Your task to perform on an android device: What's the weather going to be tomorrow? Image 0: 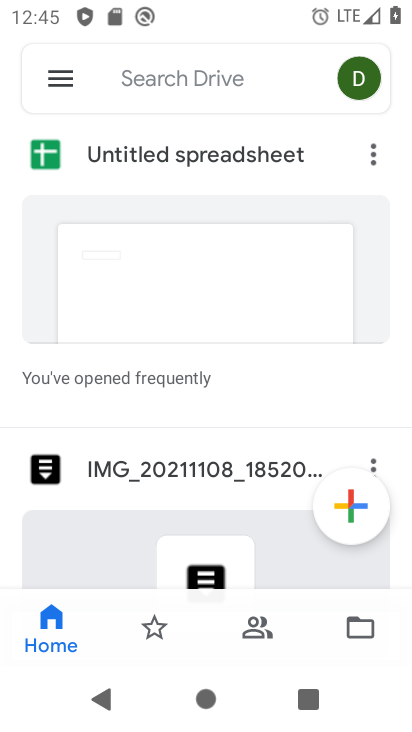
Step 0: press home button
Your task to perform on an android device: What's the weather going to be tomorrow? Image 1: 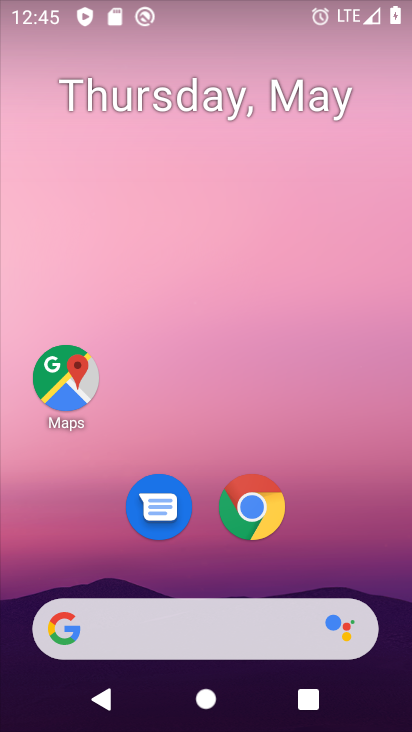
Step 1: drag from (212, 568) to (211, 185)
Your task to perform on an android device: What's the weather going to be tomorrow? Image 2: 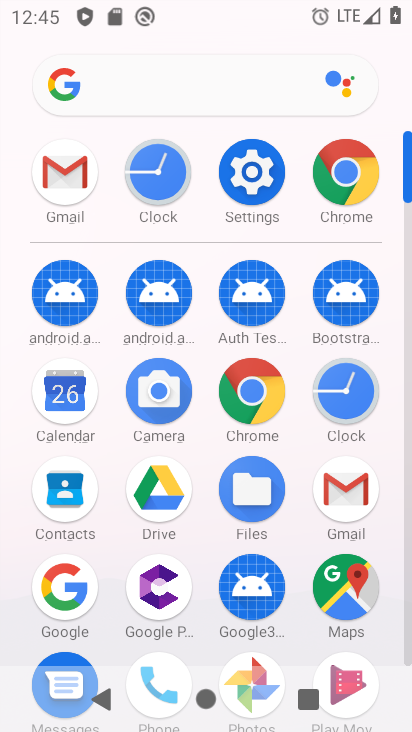
Step 2: click (69, 582)
Your task to perform on an android device: What's the weather going to be tomorrow? Image 3: 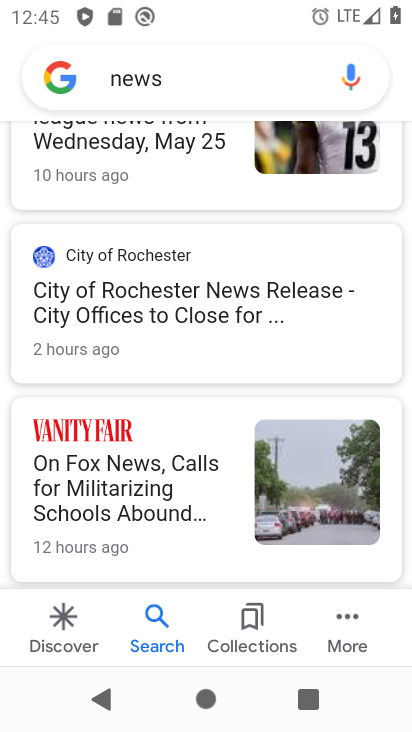
Step 3: click (230, 88)
Your task to perform on an android device: What's the weather going to be tomorrow? Image 4: 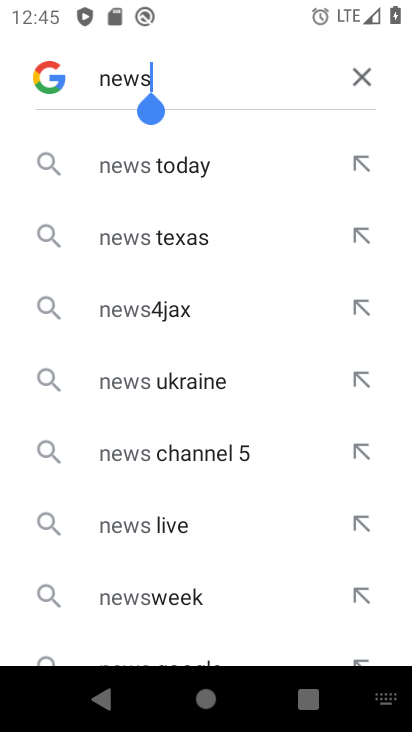
Step 4: click (355, 72)
Your task to perform on an android device: What's the weather going to be tomorrow? Image 5: 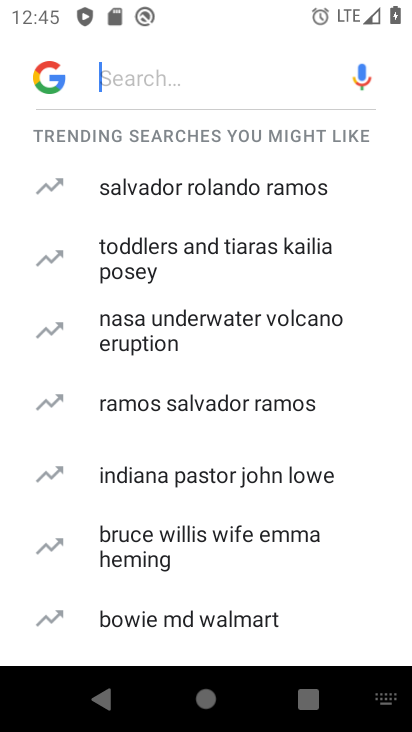
Step 5: click (215, 89)
Your task to perform on an android device: What's the weather going to be tomorrow? Image 6: 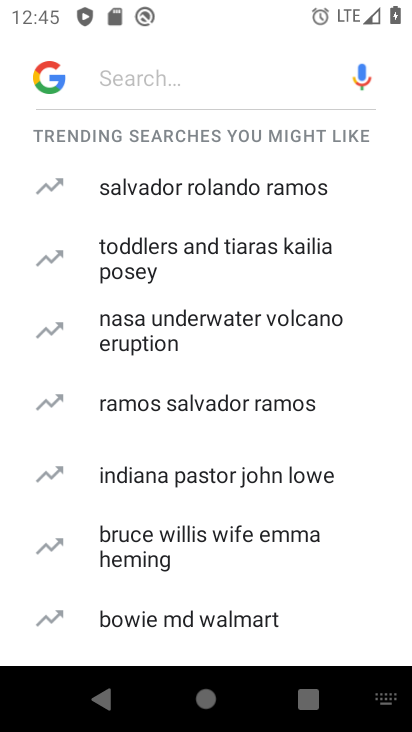
Step 6: type "weather"
Your task to perform on an android device: What's the weather going to be tomorrow? Image 7: 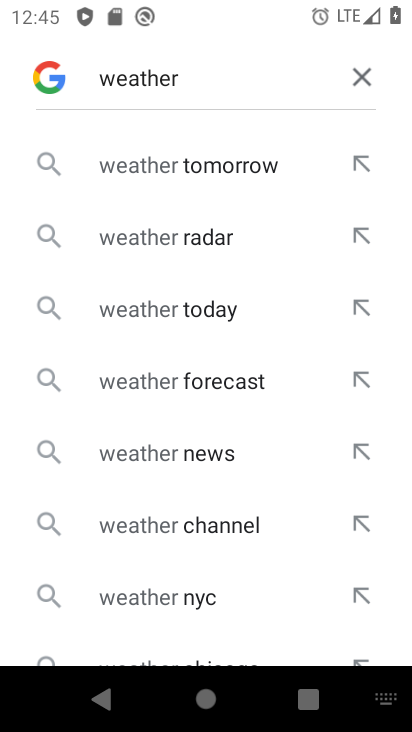
Step 7: click (245, 318)
Your task to perform on an android device: What's the weather going to be tomorrow? Image 8: 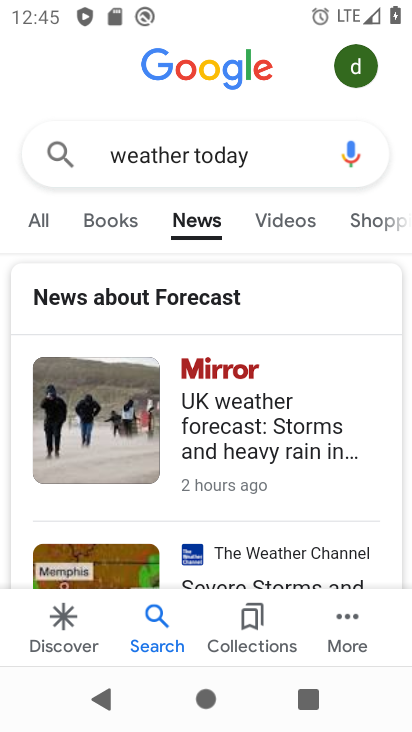
Step 8: click (38, 220)
Your task to perform on an android device: What's the weather going to be tomorrow? Image 9: 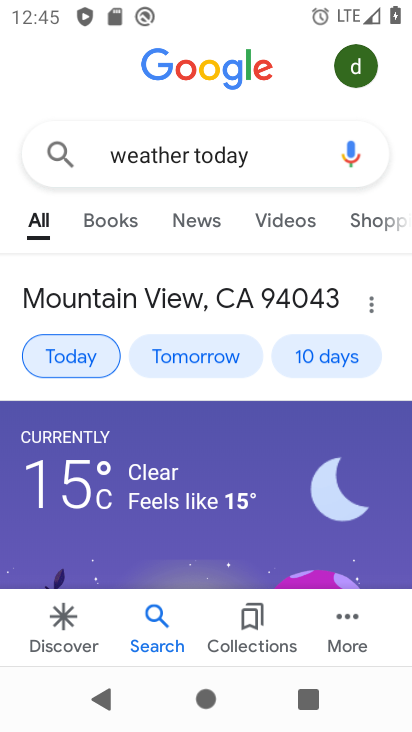
Step 9: click (194, 335)
Your task to perform on an android device: What's the weather going to be tomorrow? Image 10: 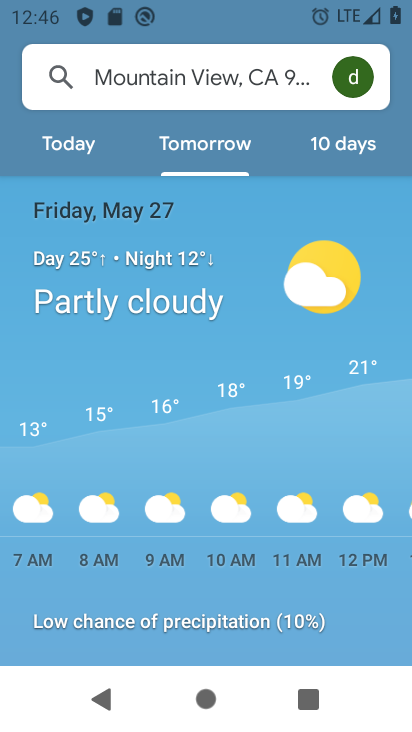
Step 10: task complete